Your task to perform on an android device: set the timer Image 0: 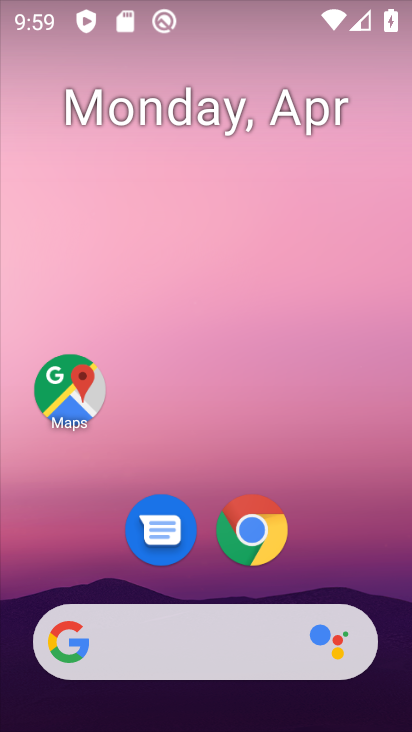
Step 0: drag from (216, 551) to (222, 196)
Your task to perform on an android device: set the timer Image 1: 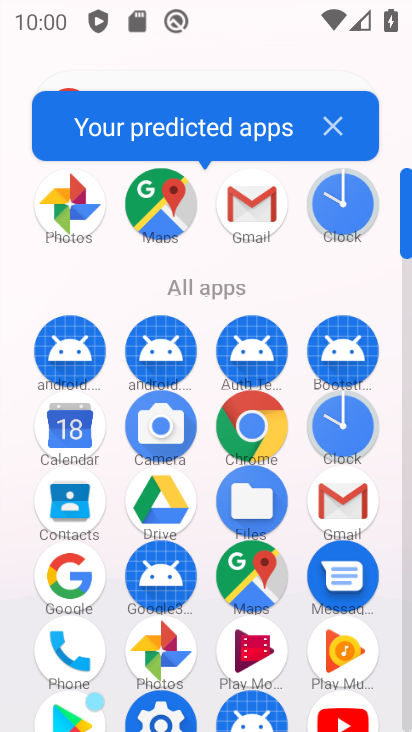
Step 1: click (351, 431)
Your task to perform on an android device: set the timer Image 2: 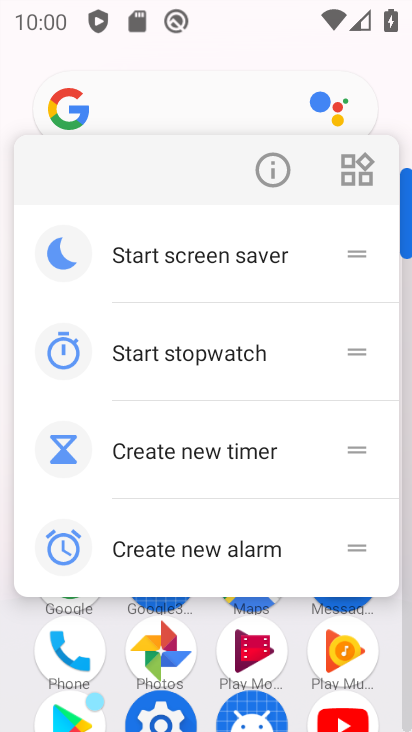
Step 2: click (226, 455)
Your task to perform on an android device: set the timer Image 3: 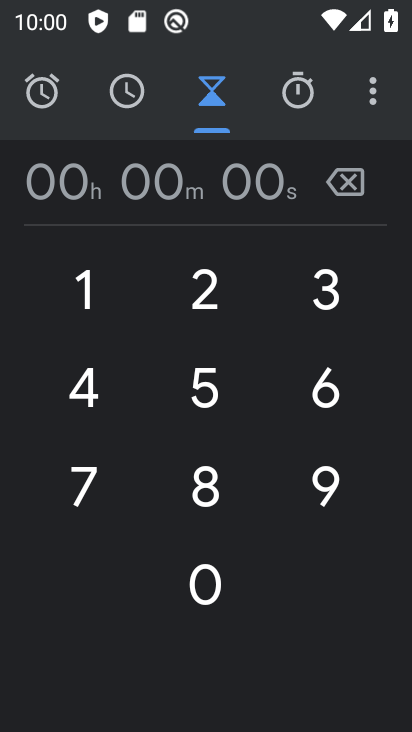
Step 3: click (201, 266)
Your task to perform on an android device: set the timer Image 4: 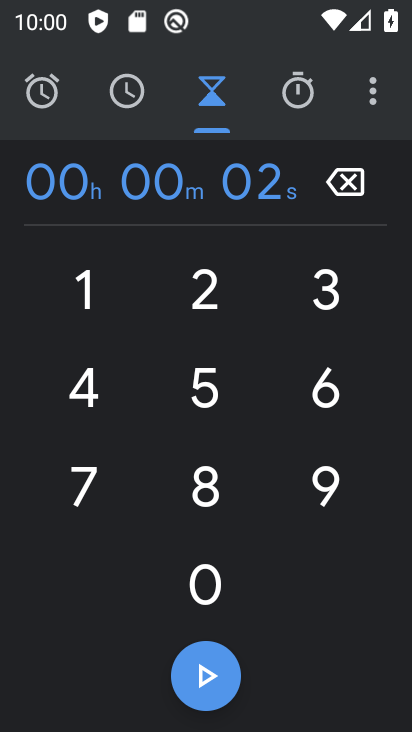
Step 4: click (314, 288)
Your task to perform on an android device: set the timer Image 5: 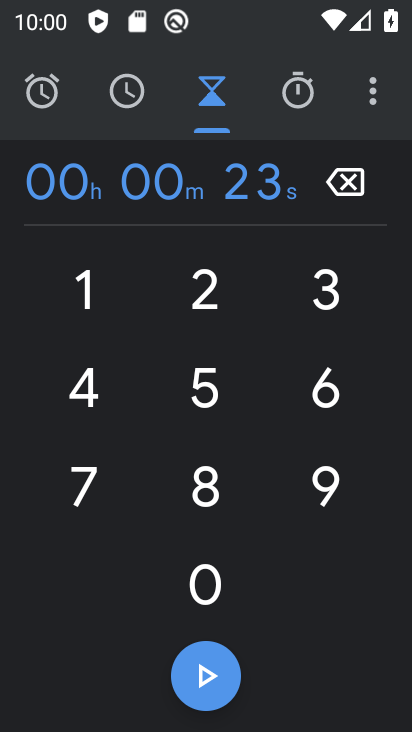
Step 5: click (210, 676)
Your task to perform on an android device: set the timer Image 6: 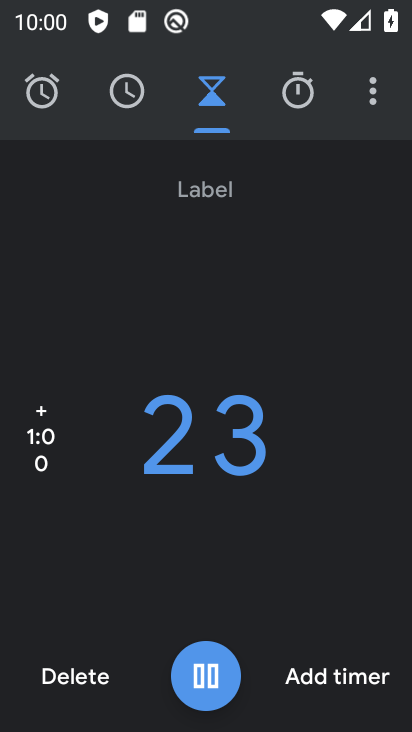
Step 6: task complete